Your task to perform on an android device: turn off data saver in the chrome app Image 0: 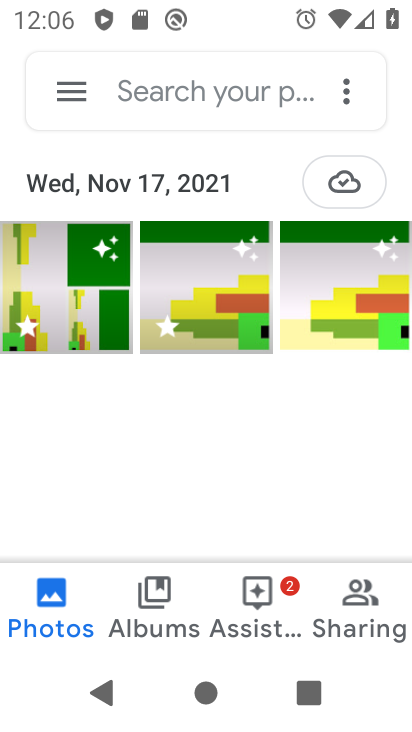
Step 0: press home button
Your task to perform on an android device: turn off data saver in the chrome app Image 1: 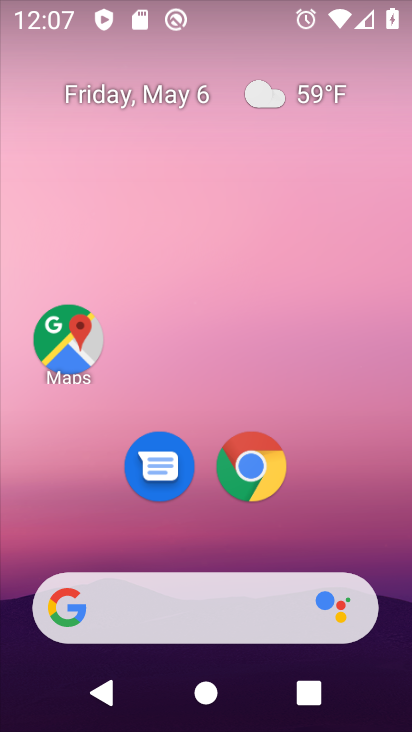
Step 1: click (250, 471)
Your task to perform on an android device: turn off data saver in the chrome app Image 2: 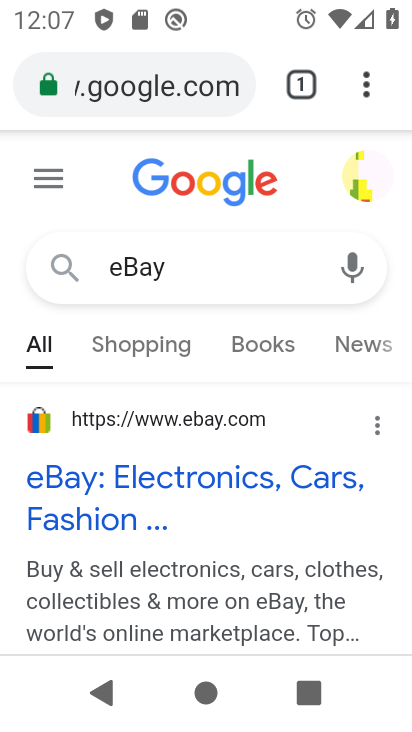
Step 2: click (367, 86)
Your task to perform on an android device: turn off data saver in the chrome app Image 3: 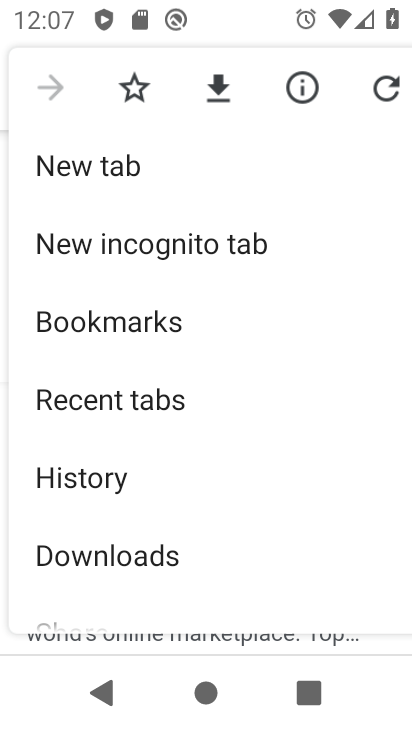
Step 3: drag from (118, 597) to (208, 198)
Your task to perform on an android device: turn off data saver in the chrome app Image 4: 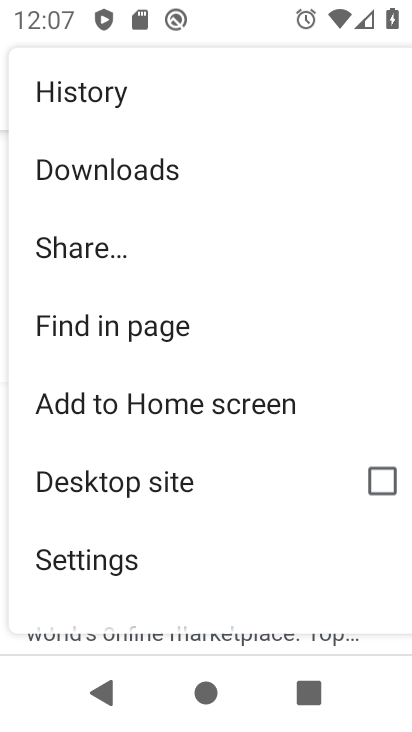
Step 4: click (80, 557)
Your task to perform on an android device: turn off data saver in the chrome app Image 5: 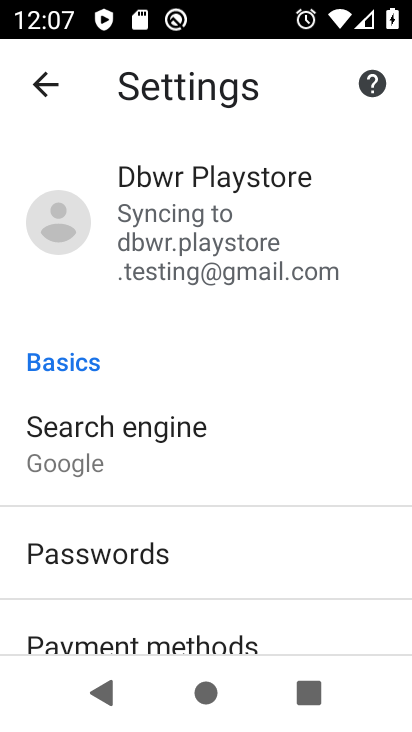
Step 5: drag from (205, 592) to (248, 252)
Your task to perform on an android device: turn off data saver in the chrome app Image 6: 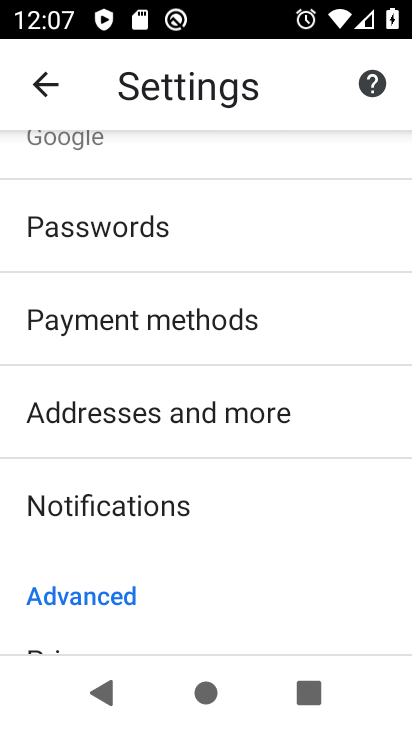
Step 6: drag from (125, 598) to (203, 377)
Your task to perform on an android device: turn off data saver in the chrome app Image 7: 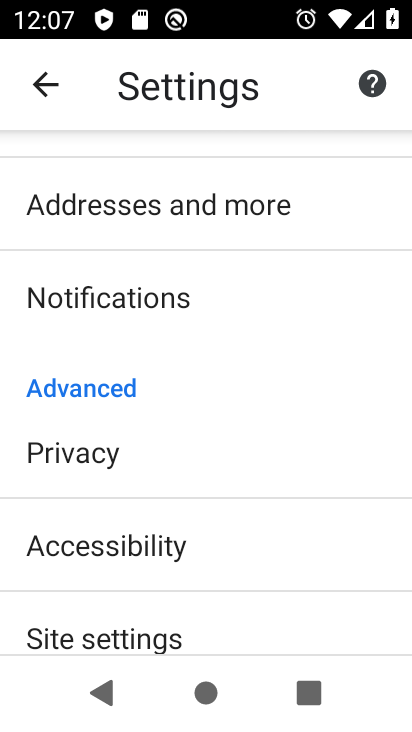
Step 7: drag from (190, 588) to (226, 192)
Your task to perform on an android device: turn off data saver in the chrome app Image 8: 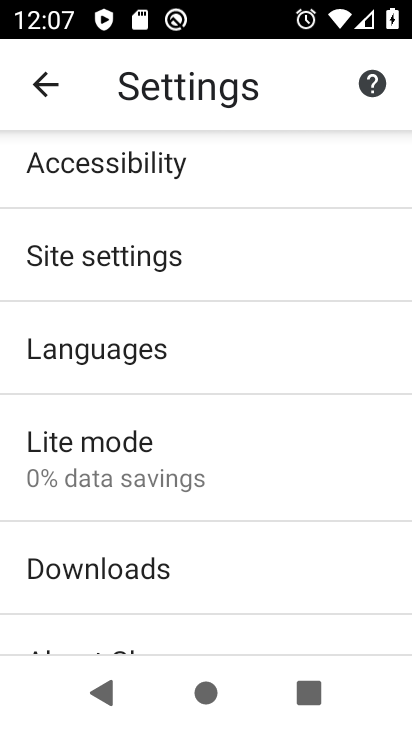
Step 8: click (133, 471)
Your task to perform on an android device: turn off data saver in the chrome app Image 9: 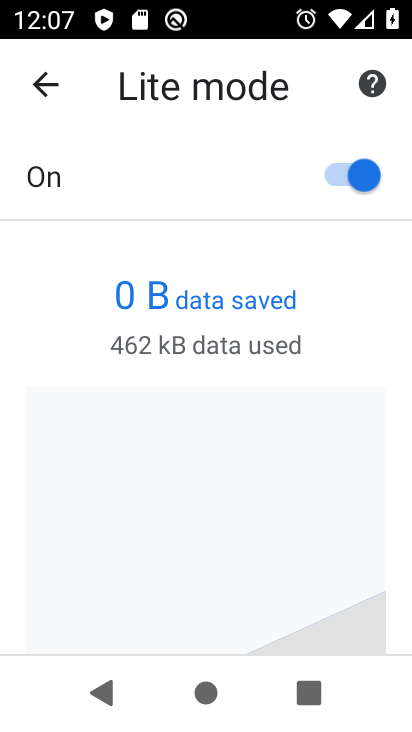
Step 9: click (344, 174)
Your task to perform on an android device: turn off data saver in the chrome app Image 10: 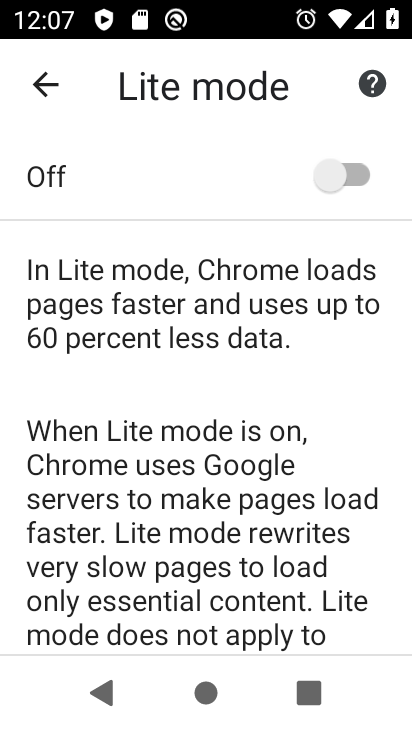
Step 10: task complete